Your task to perform on an android device: View the shopping cart on walmart.com. Image 0: 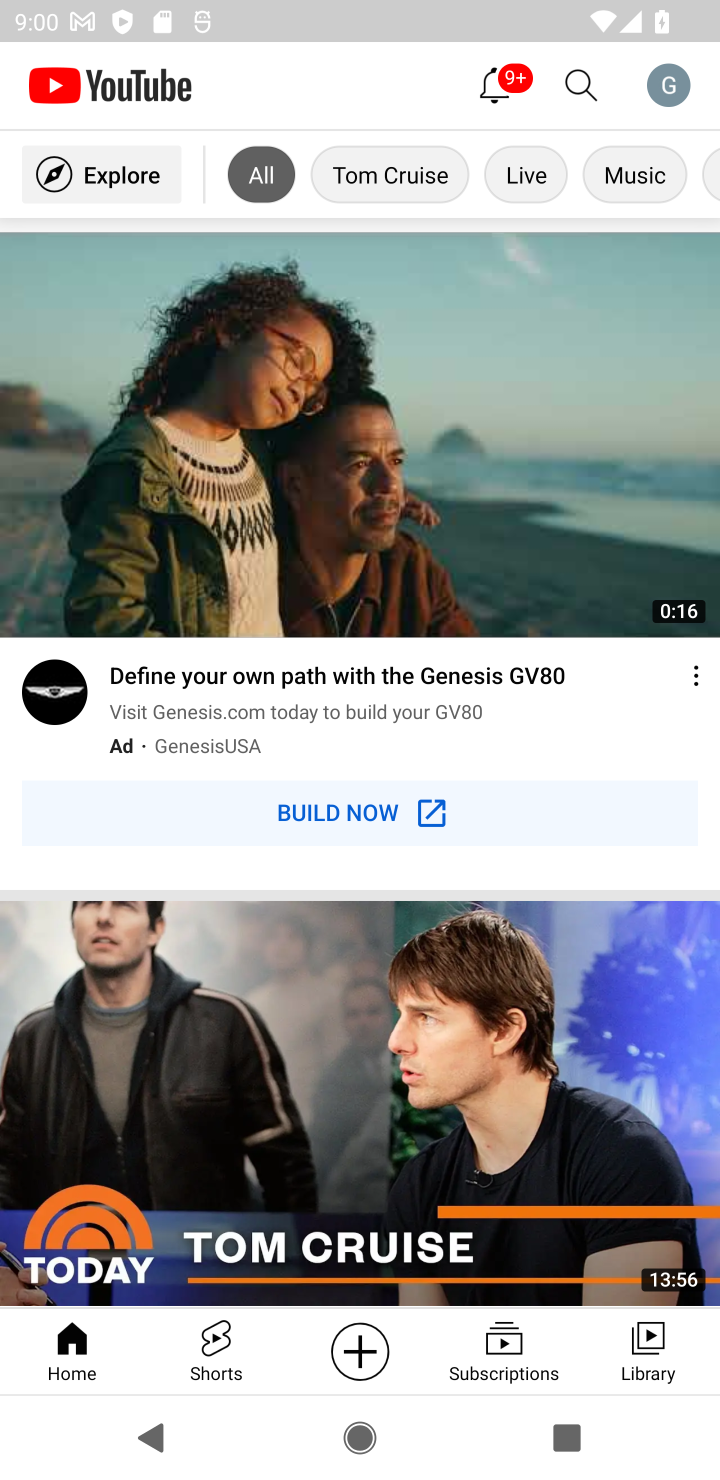
Step 0: press home button
Your task to perform on an android device: View the shopping cart on walmart.com. Image 1: 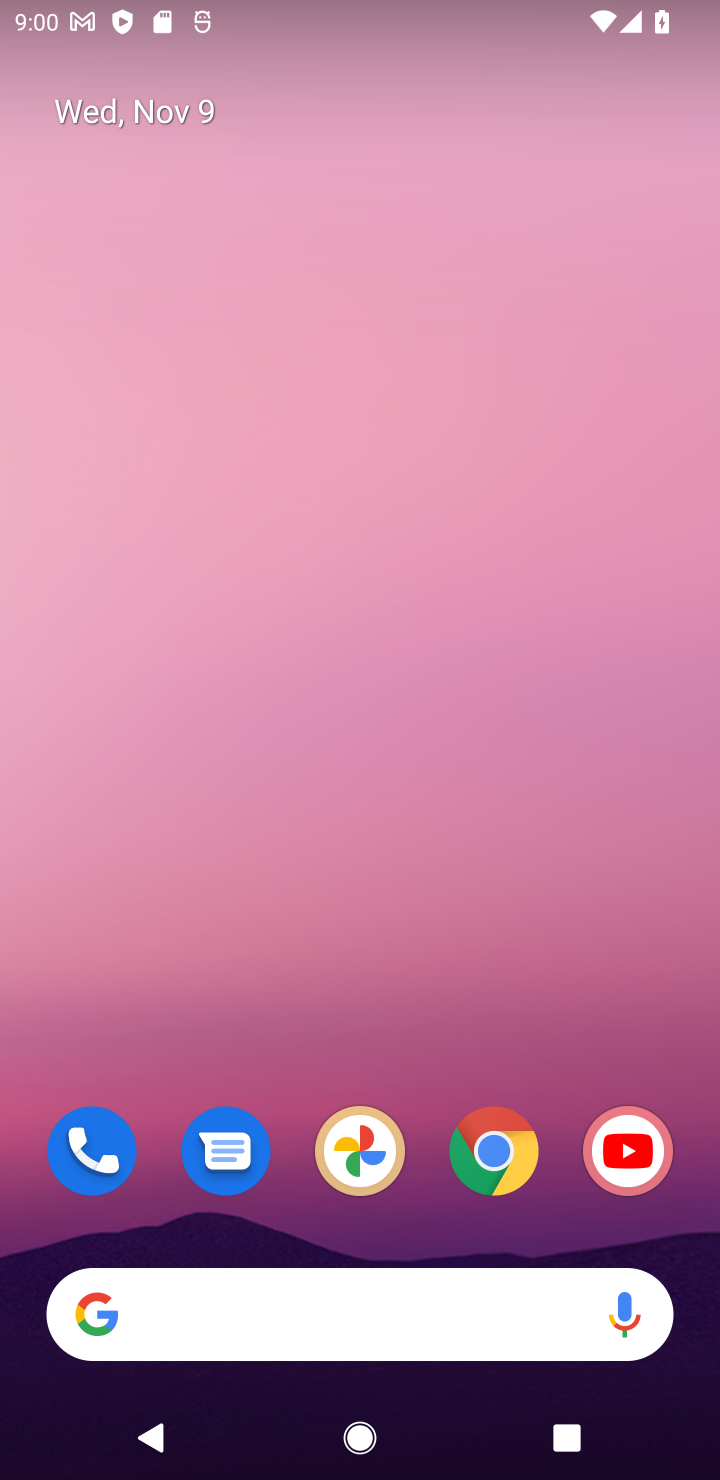
Step 1: click (494, 1163)
Your task to perform on an android device: View the shopping cart on walmart.com. Image 2: 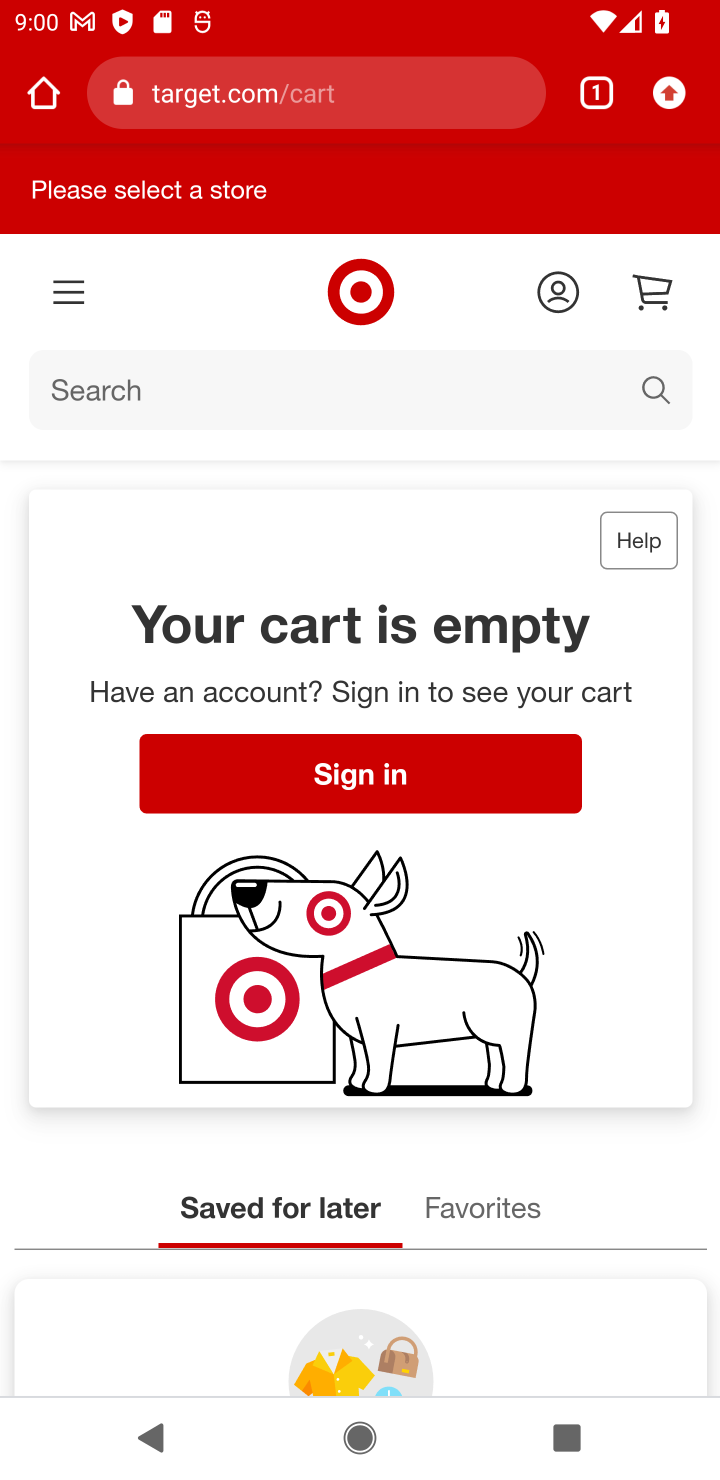
Step 2: click (306, 100)
Your task to perform on an android device: View the shopping cart on walmart.com. Image 3: 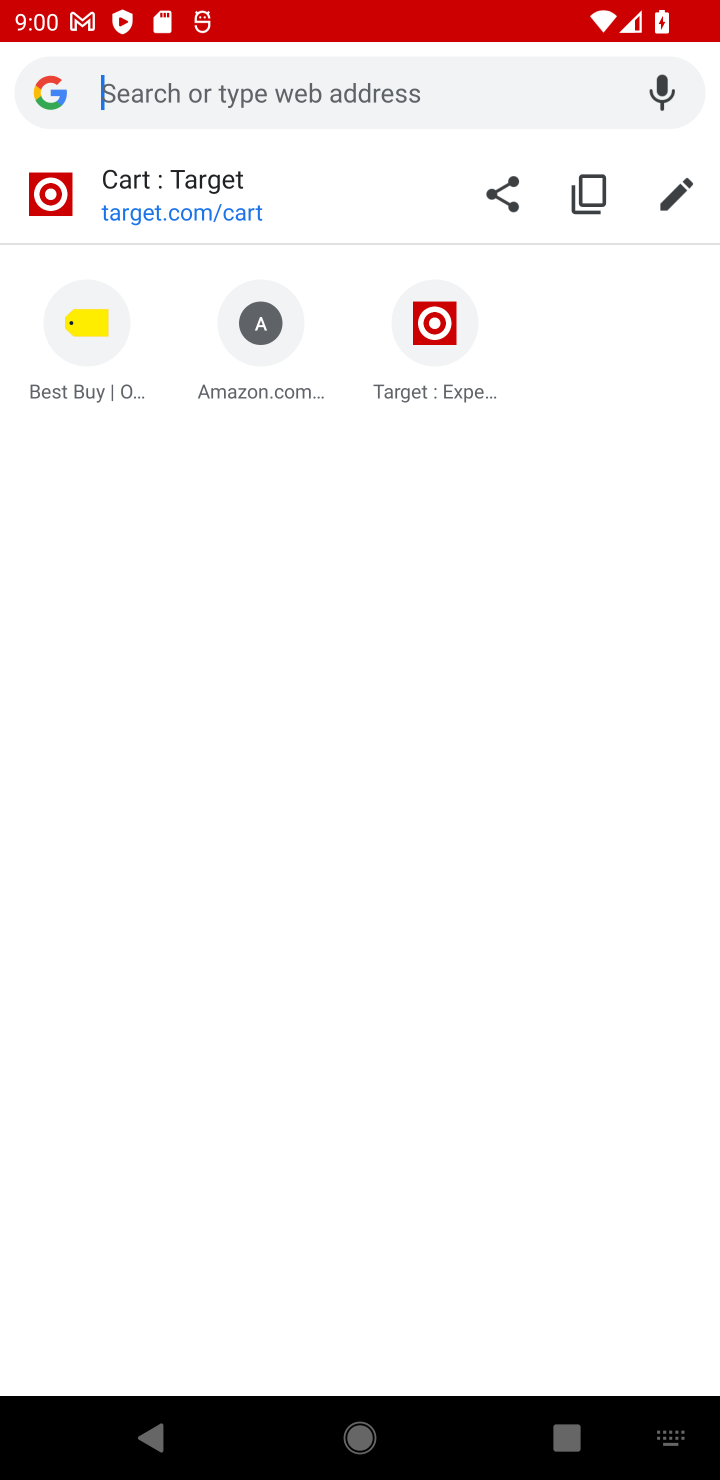
Step 3: type "walmart.com"
Your task to perform on an android device: View the shopping cart on walmart.com. Image 4: 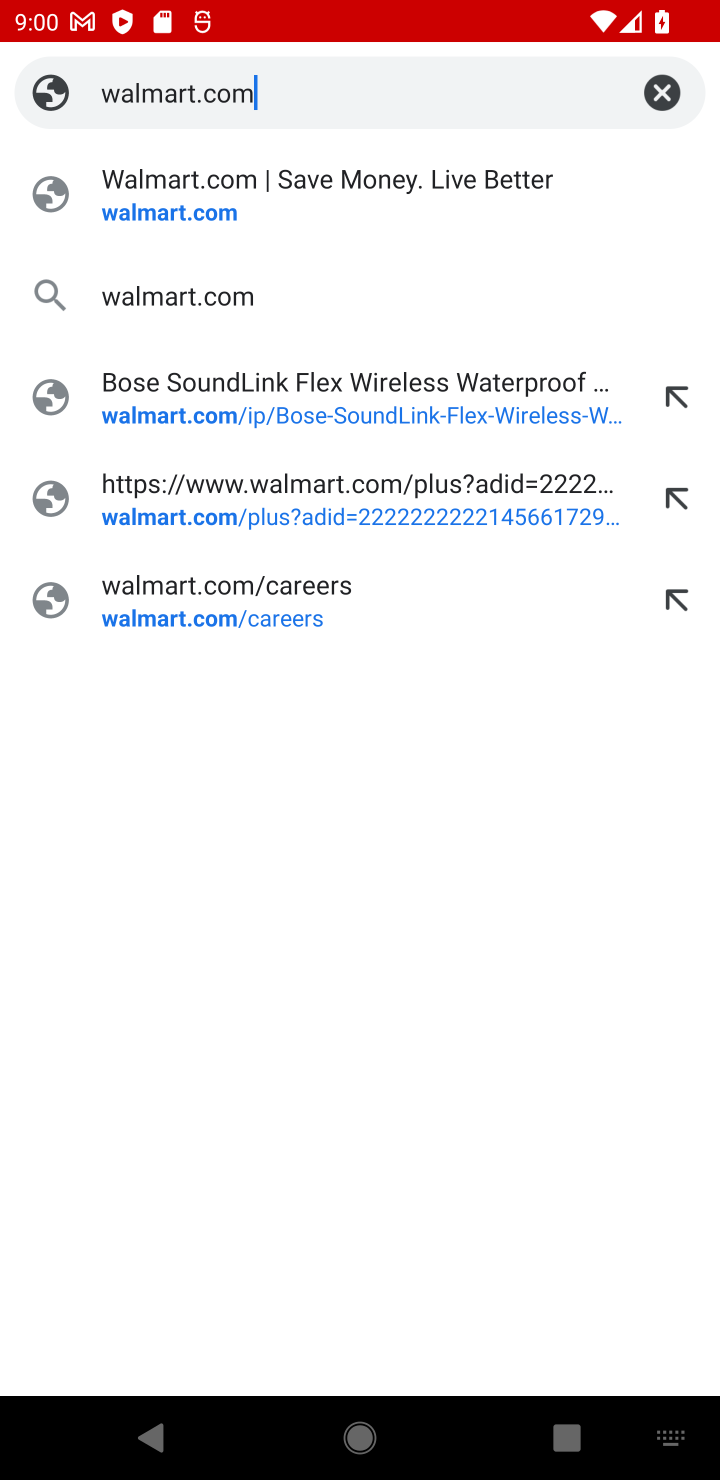
Step 4: click (413, 192)
Your task to perform on an android device: View the shopping cart on walmart.com. Image 5: 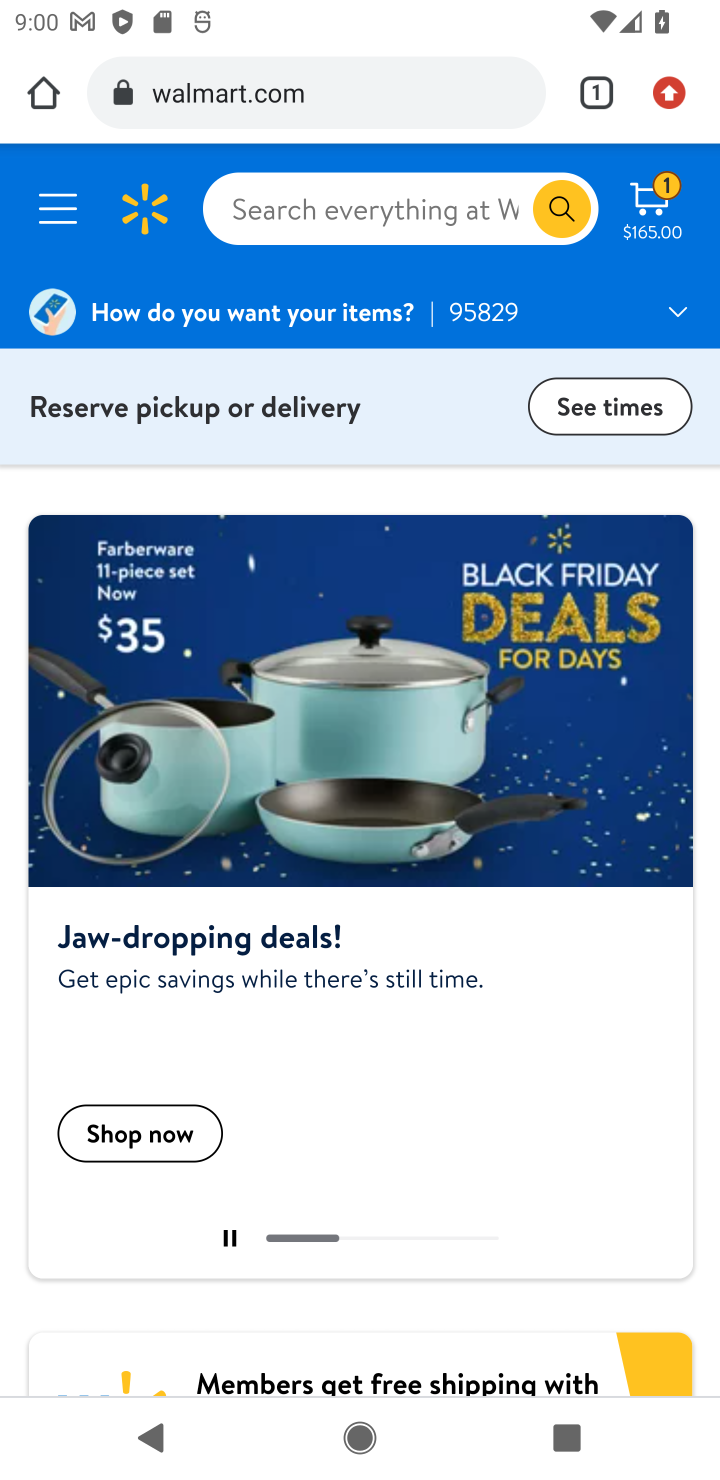
Step 5: click (654, 216)
Your task to perform on an android device: View the shopping cart on walmart.com. Image 6: 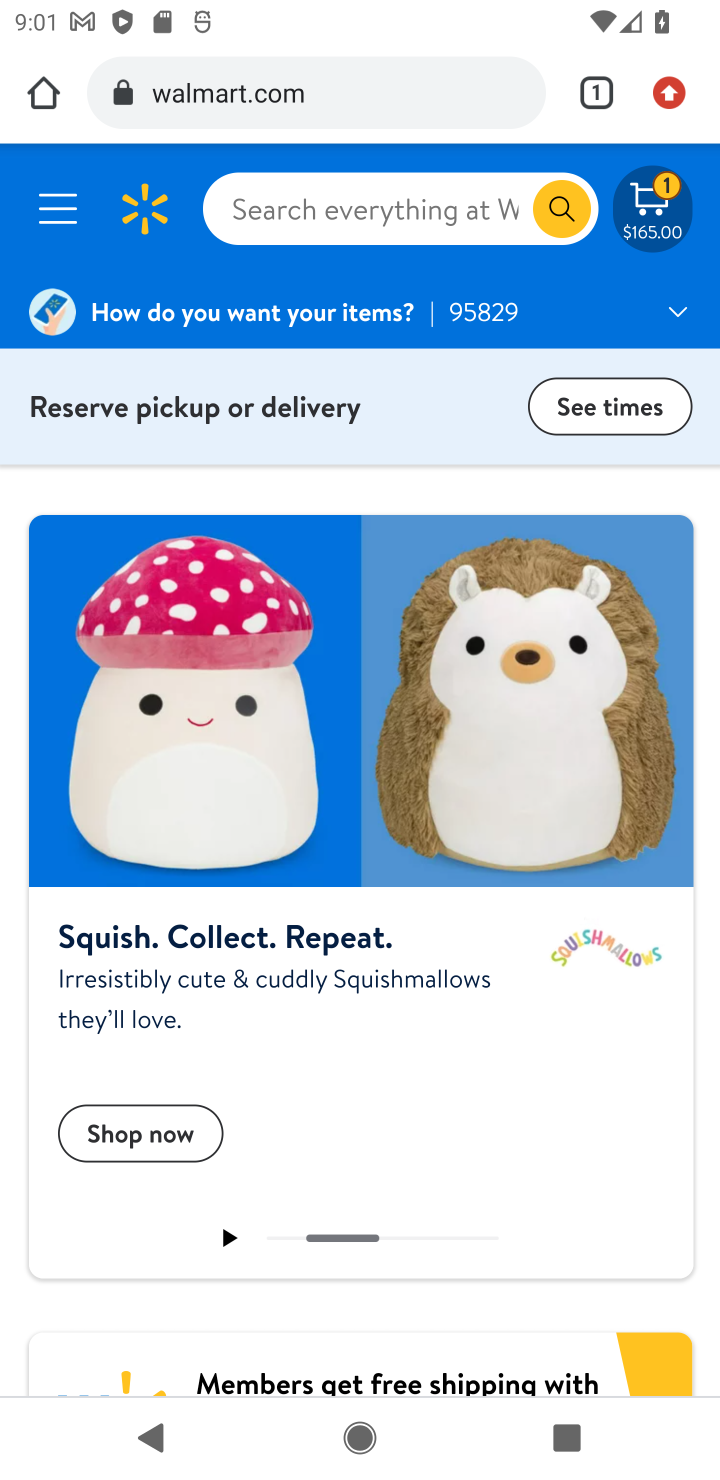
Step 6: click (664, 211)
Your task to perform on an android device: View the shopping cart on walmart.com. Image 7: 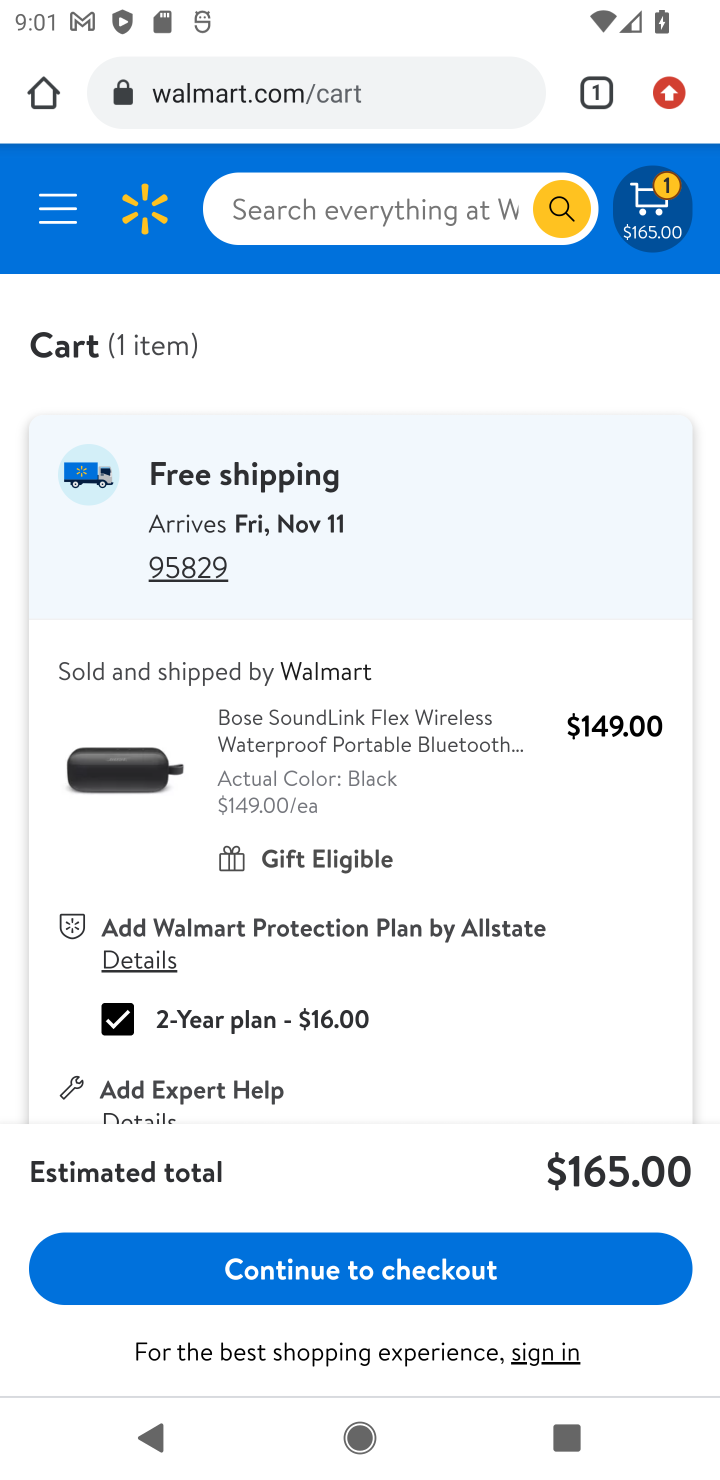
Step 7: task complete